Your task to perform on an android device: Check the news Image 0: 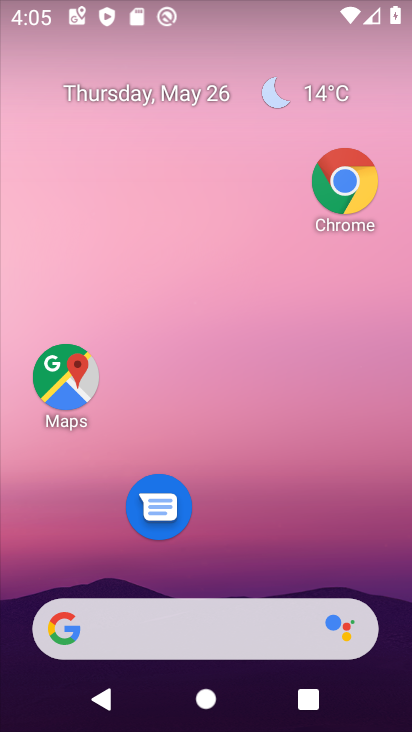
Step 0: drag from (249, 563) to (249, 84)
Your task to perform on an android device: Check the news Image 1: 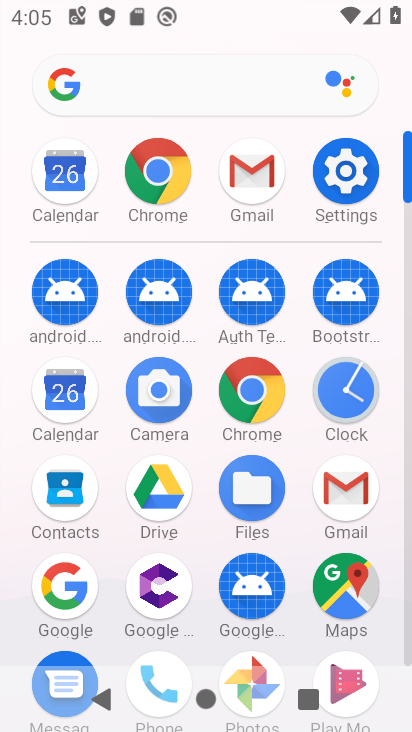
Step 1: click (254, 396)
Your task to perform on an android device: Check the news Image 2: 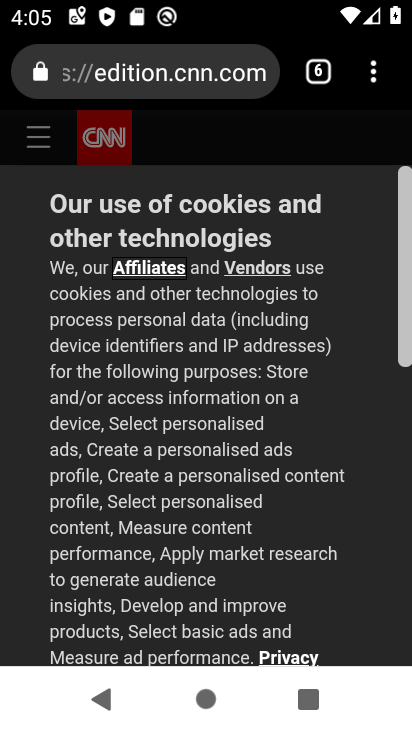
Step 2: click (204, 73)
Your task to perform on an android device: Check the news Image 3: 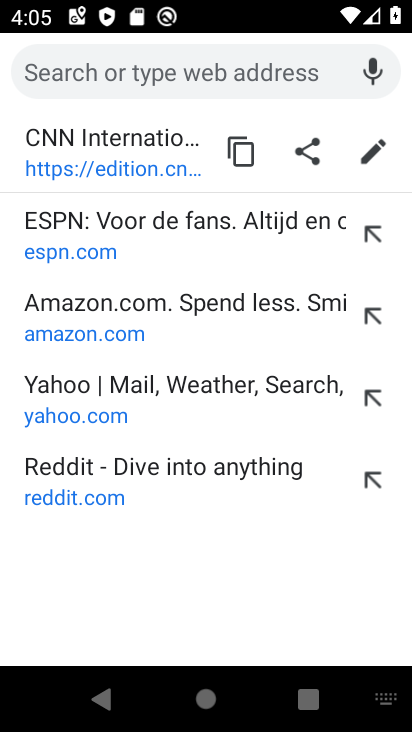
Step 3: type "Check the news"
Your task to perform on an android device: Check the news Image 4: 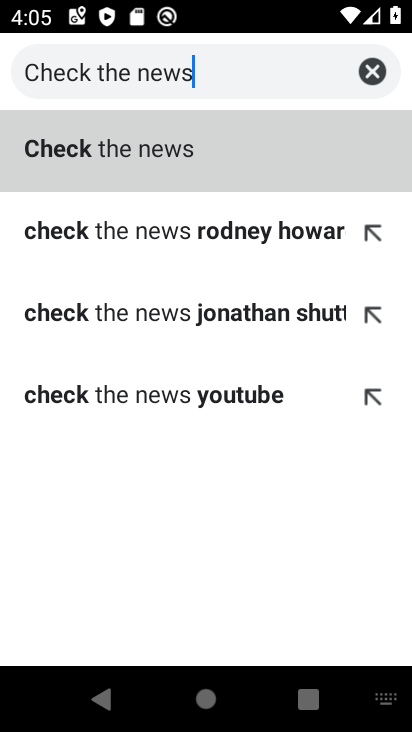
Step 4: click (173, 144)
Your task to perform on an android device: Check the news Image 5: 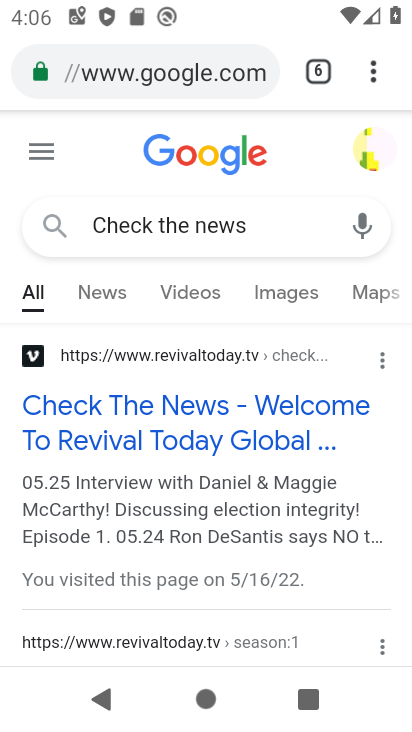
Step 5: click (114, 295)
Your task to perform on an android device: Check the news Image 6: 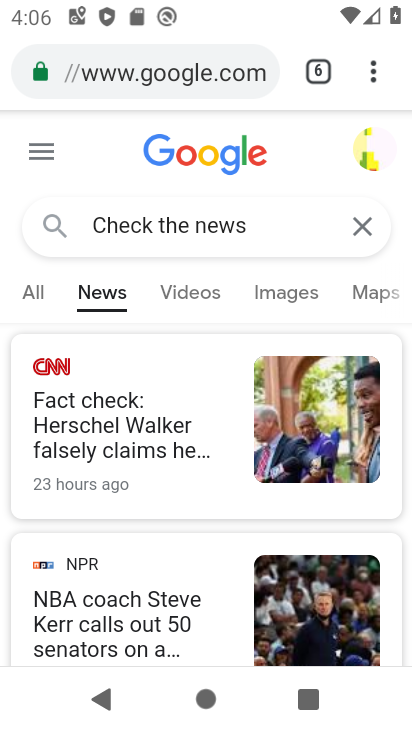
Step 6: task complete